Your task to perform on an android device: Go to display settings Image 0: 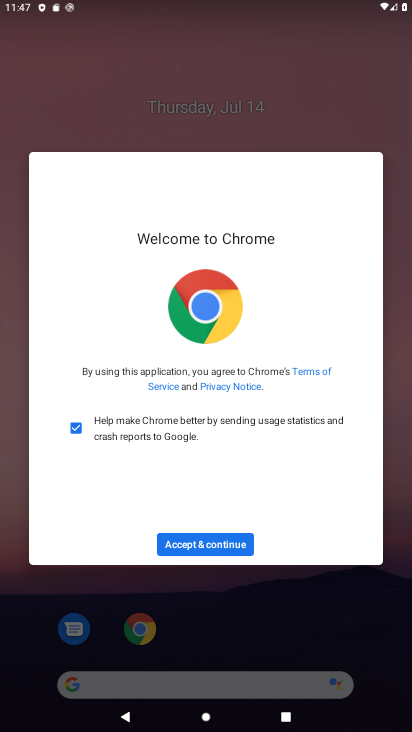
Step 0: press home button
Your task to perform on an android device: Go to display settings Image 1: 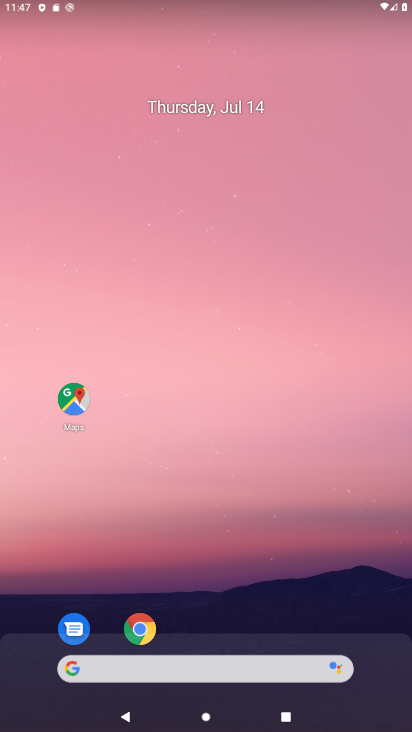
Step 1: drag from (223, 642) to (233, 83)
Your task to perform on an android device: Go to display settings Image 2: 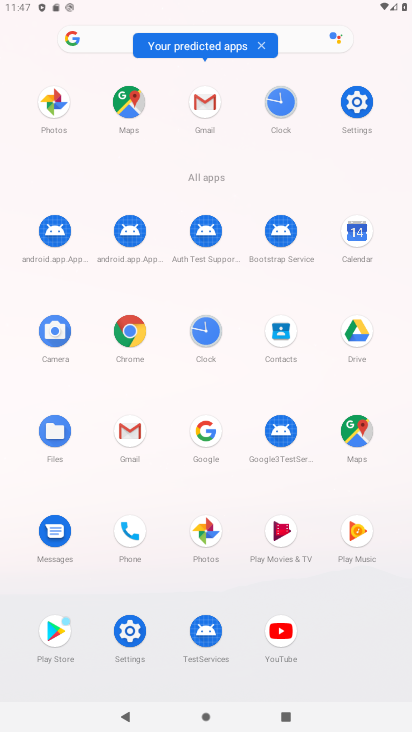
Step 2: click (122, 620)
Your task to perform on an android device: Go to display settings Image 3: 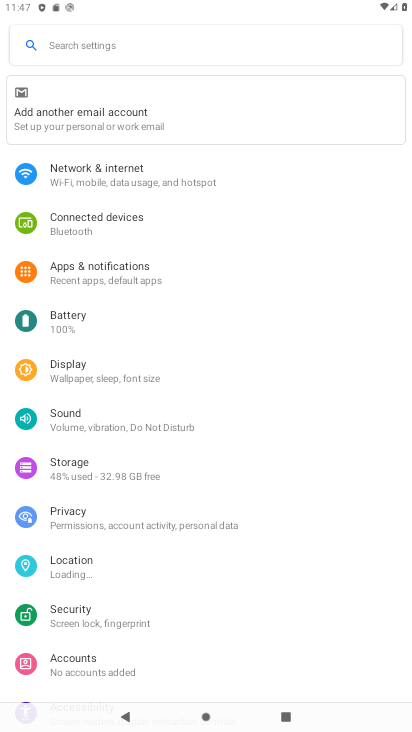
Step 3: click (68, 357)
Your task to perform on an android device: Go to display settings Image 4: 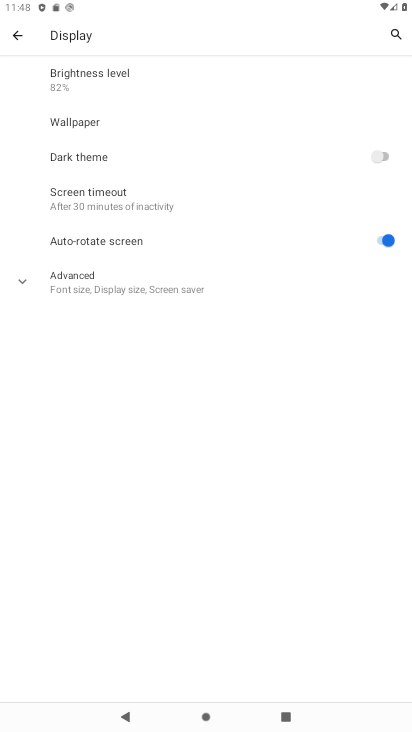
Step 4: task complete